Your task to perform on an android device: turn pop-ups off in chrome Image 0: 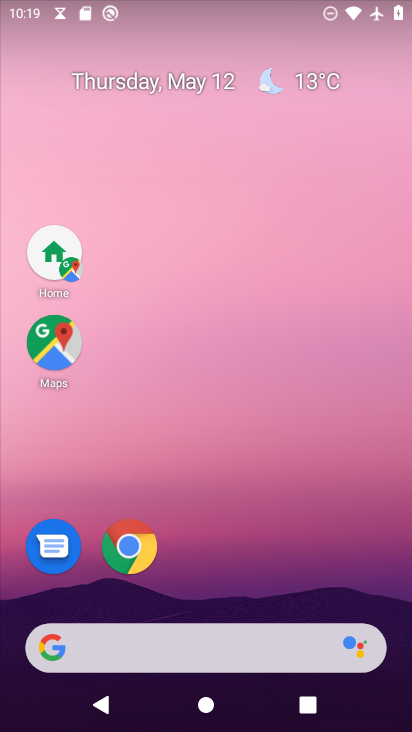
Step 0: press home button
Your task to perform on an android device: turn pop-ups off in chrome Image 1: 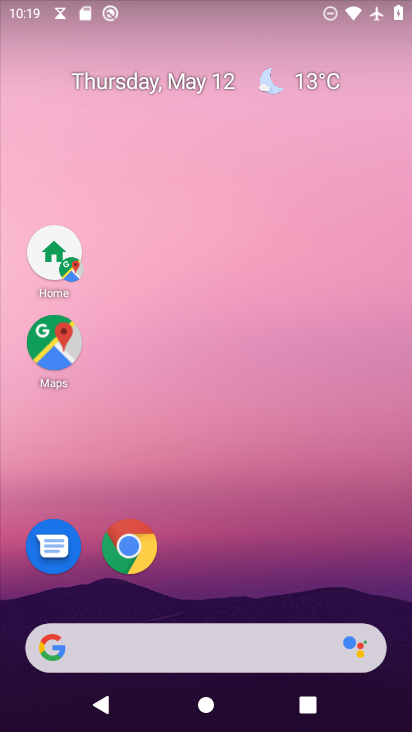
Step 1: click (121, 553)
Your task to perform on an android device: turn pop-ups off in chrome Image 2: 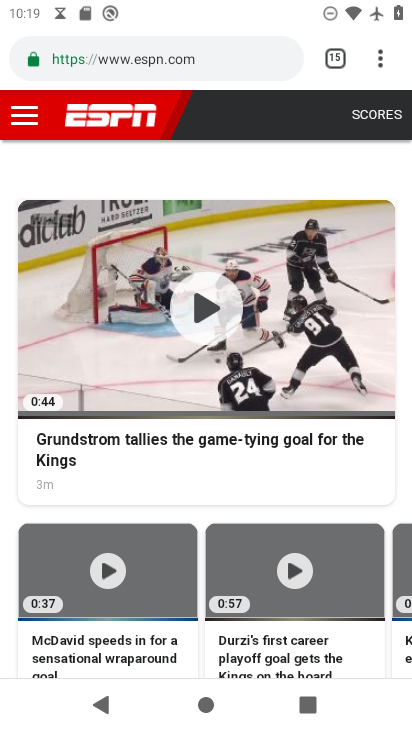
Step 2: drag from (380, 70) to (251, 578)
Your task to perform on an android device: turn pop-ups off in chrome Image 3: 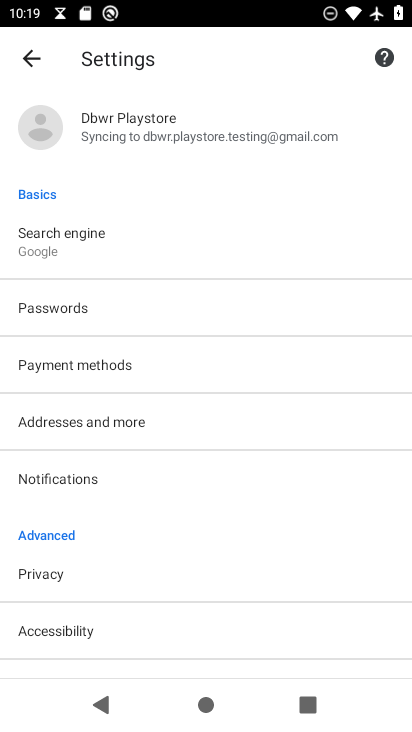
Step 3: drag from (218, 612) to (279, 297)
Your task to perform on an android device: turn pop-ups off in chrome Image 4: 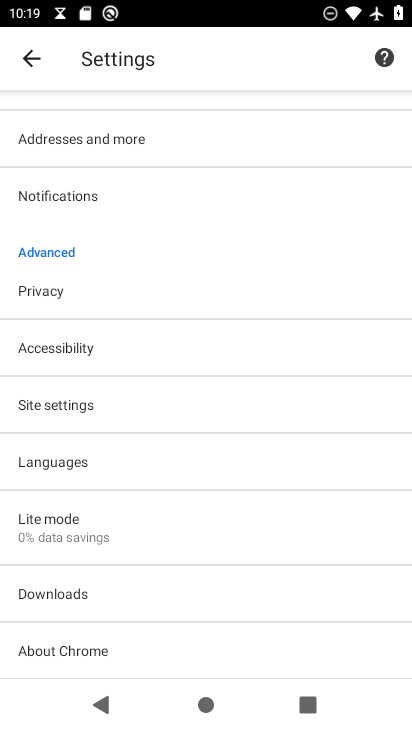
Step 4: click (57, 407)
Your task to perform on an android device: turn pop-ups off in chrome Image 5: 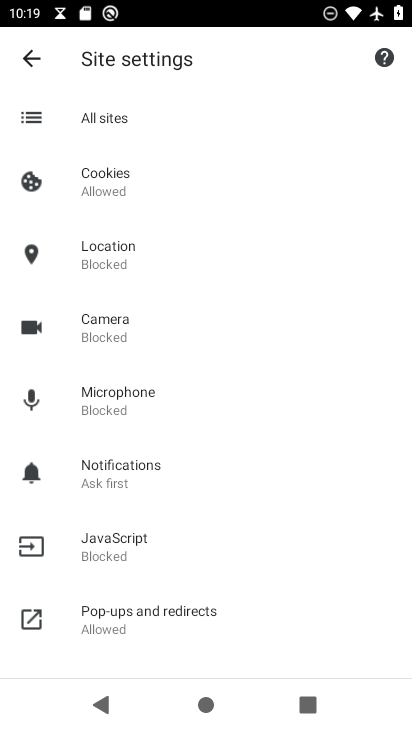
Step 5: click (133, 608)
Your task to perform on an android device: turn pop-ups off in chrome Image 6: 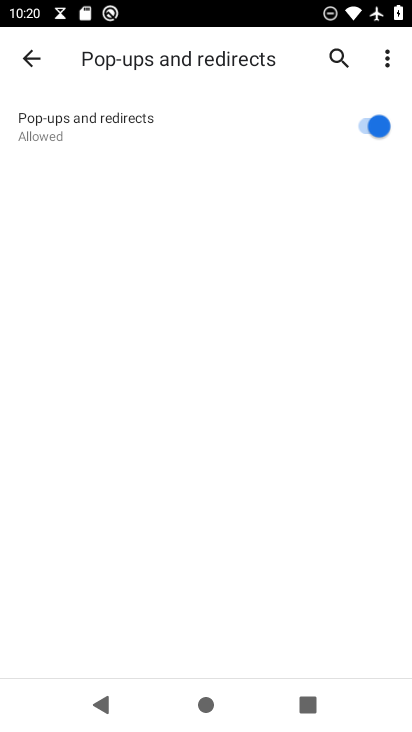
Step 6: click (365, 122)
Your task to perform on an android device: turn pop-ups off in chrome Image 7: 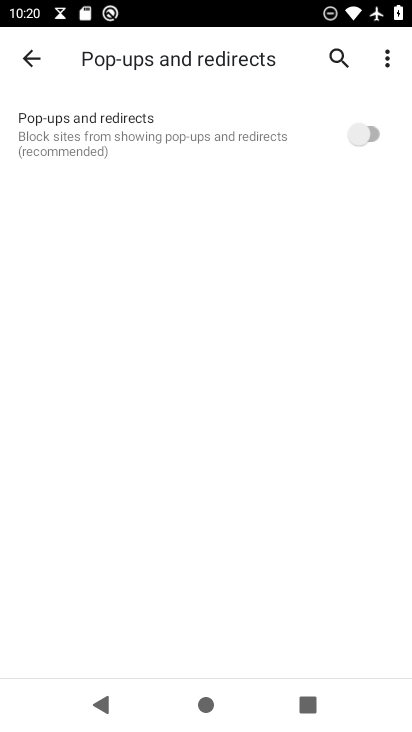
Step 7: task complete